Your task to perform on an android device: change your default location settings in chrome Image 0: 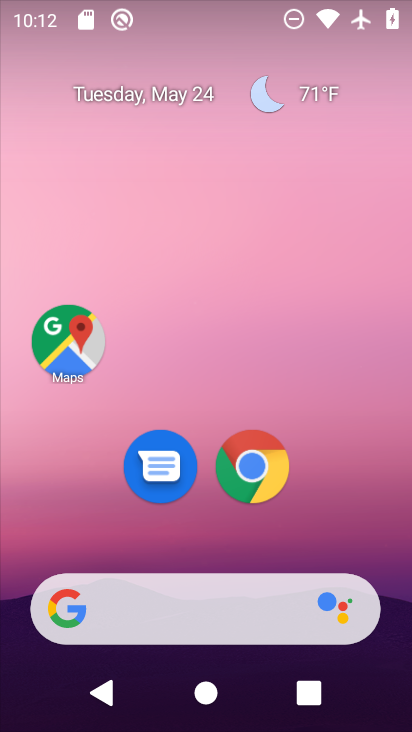
Step 0: drag from (191, 544) to (182, 21)
Your task to perform on an android device: change your default location settings in chrome Image 1: 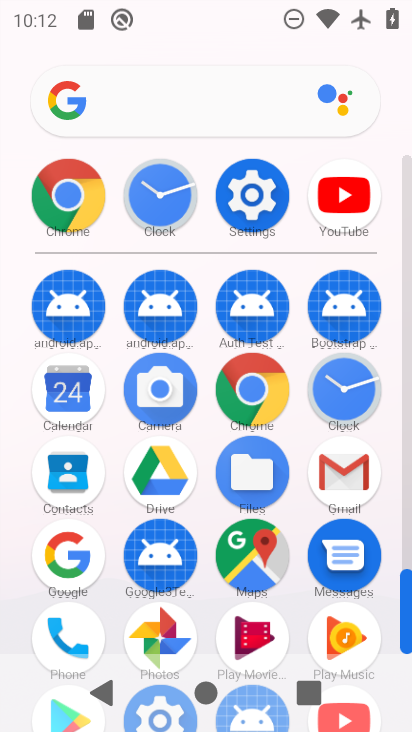
Step 1: click (268, 400)
Your task to perform on an android device: change your default location settings in chrome Image 2: 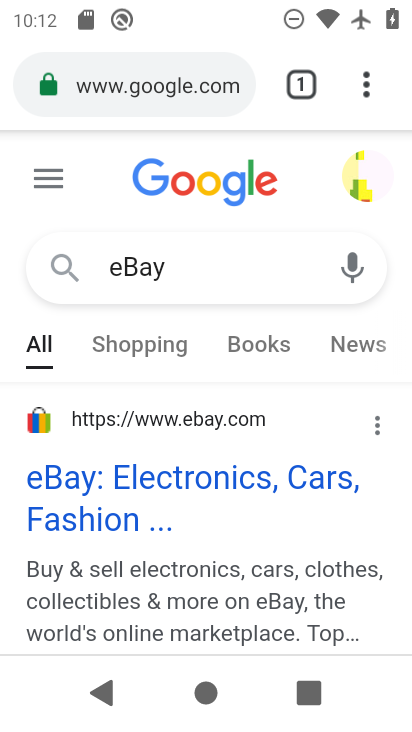
Step 2: click (361, 95)
Your task to perform on an android device: change your default location settings in chrome Image 3: 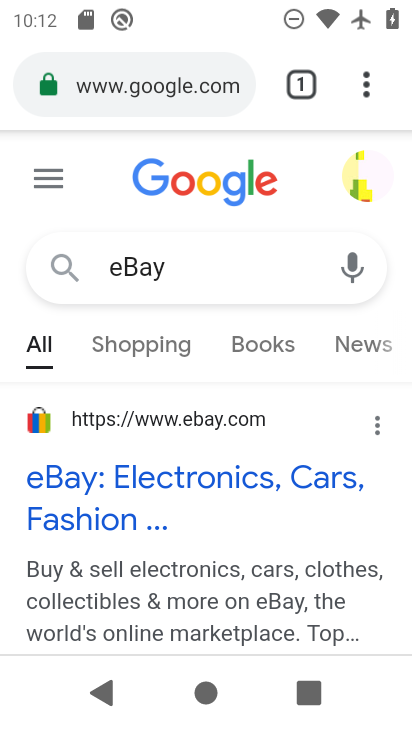
Step 3: click (373, 92)
Your task to perform on an android device: change your default location settings in chrome Image 4: 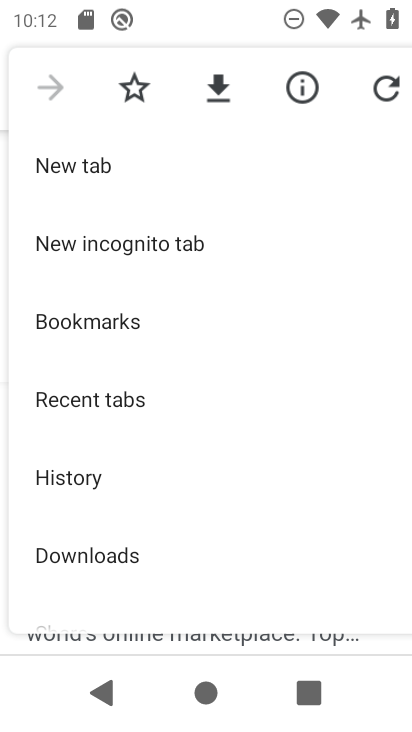
Step 4: drag from (84, 569) to (122, 193)
Your task to perform on an android device: change your default location settings in chrome Image 5: 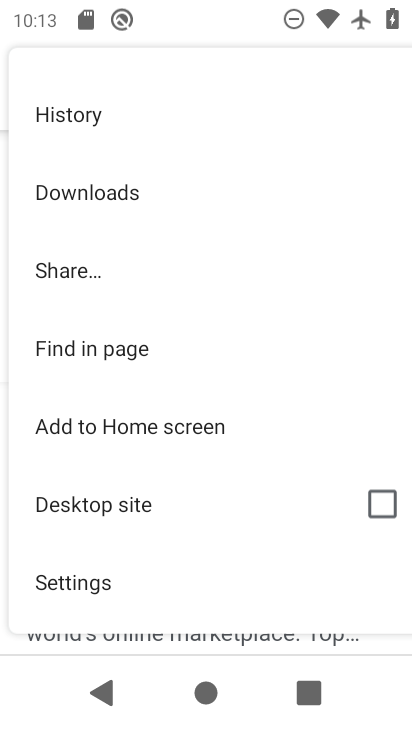
Step 5: click (83, 575)
Your task to perform on an android device: change your default location settings in chrome Image 6: 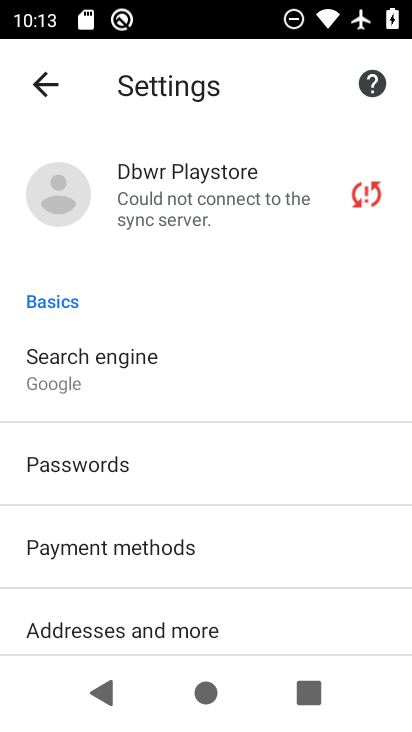
Step 6: drag from (93, 584) to (141, 246)
Your task to perform on an android device: change your default location settings in chrome Image 7: 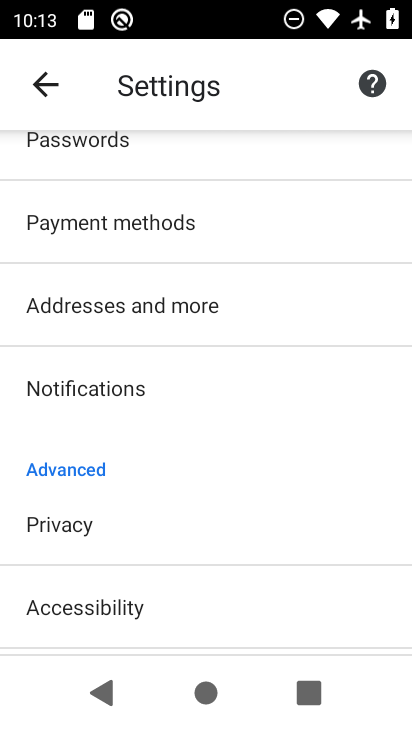
Step 7: drag from (110, 550) to (168, 167)
Your task to perform on an android device: change your default location settings in chrome Image 8: 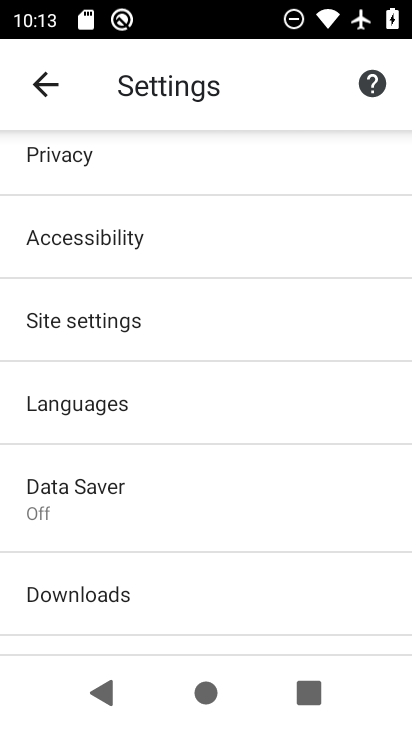
Step 8: click (126, 307)
Your task to perform on an android device: change your default location settings in chrome Image 9: 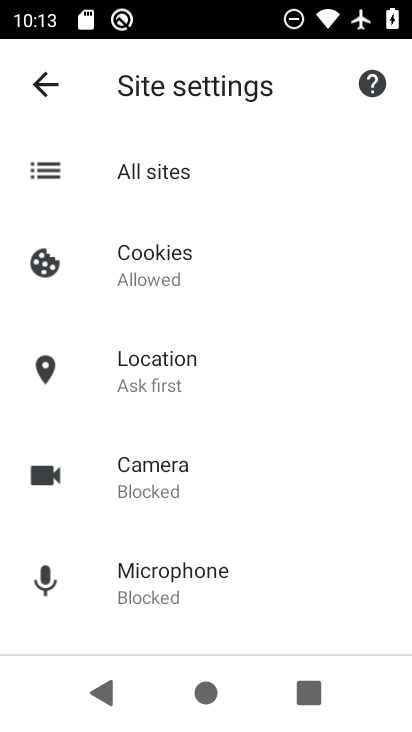
Step 9: click (156, 374)
Your task to perform on an android device: change your default location settings in chrome Image 10: 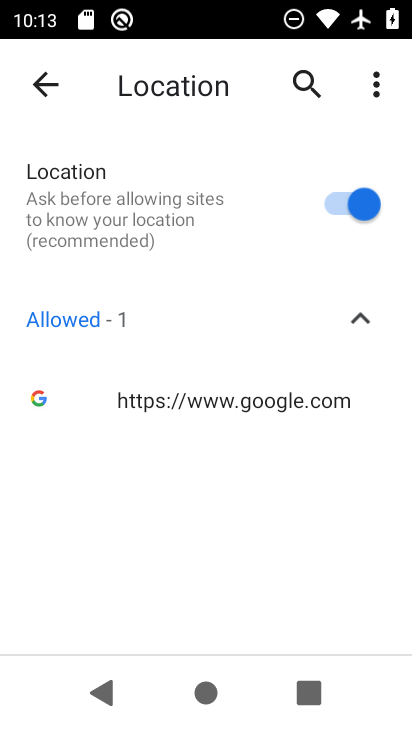
Step 10: click (331, 202)
Your task to perform on an android device: change your default location settings in chrome Image 11: 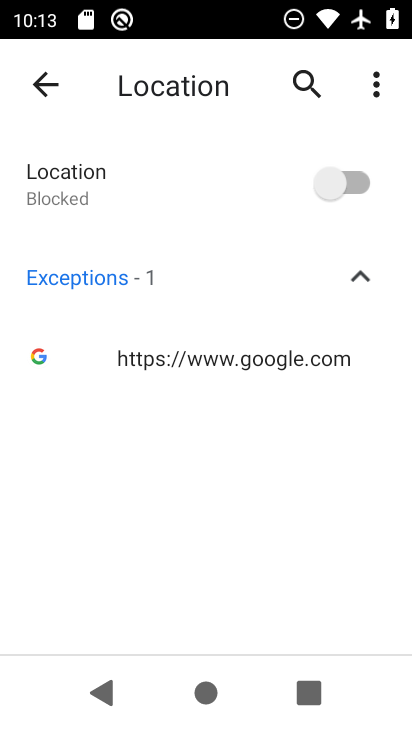
Step 11: task complete